Your task to perform on an android device: turn off javascript in the chrome app Image 0: 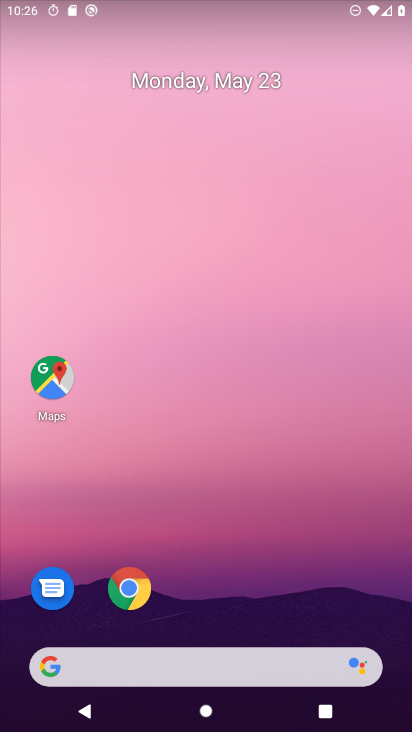
Step 0: click (128, 579)
Your task to perform on an android device: turn off javascript in the chrome app Image 1: 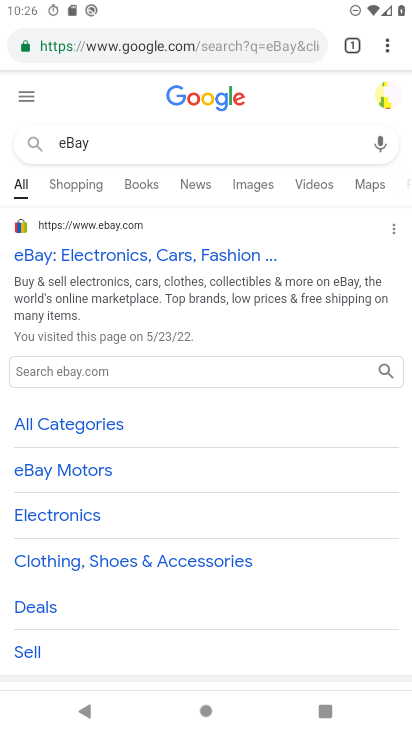
Step 1: click (386, 34)
Your task to perform on an android device: turn off javascript in the chrome app Image 2: 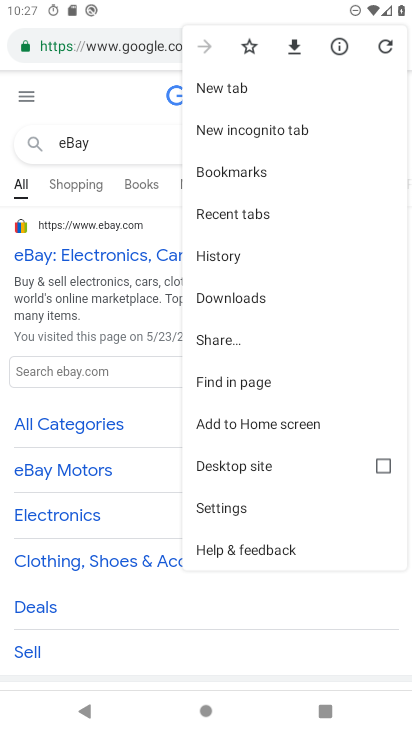
Step 2: click (236, 502)
Your task to perform on an android device: turn off javascript in the chrome app Image 3: 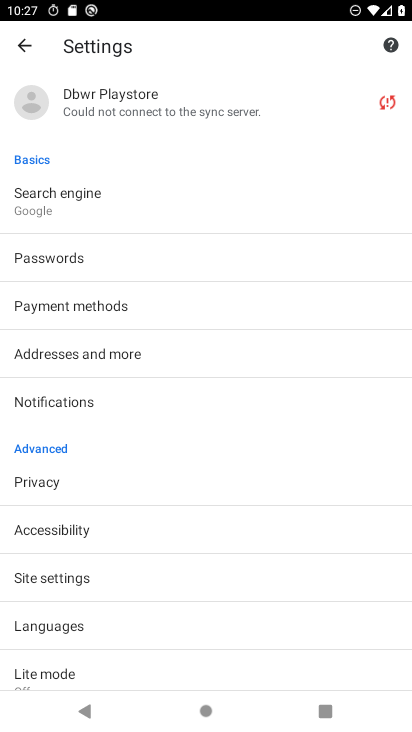
Step 3: click (63, 571)
Your task to perform on an android device: turn off javascript in the chrome app Image 4: 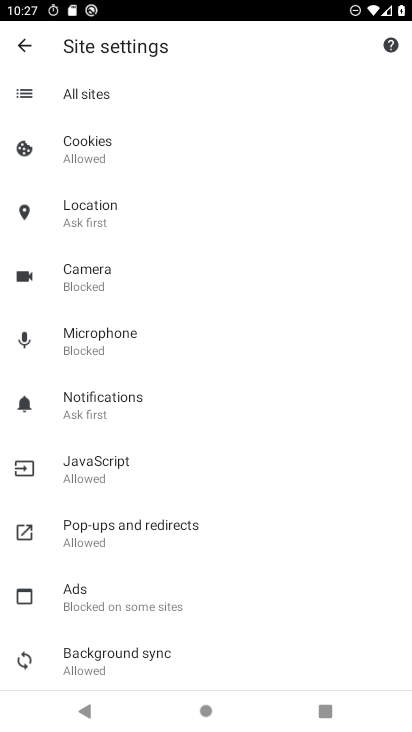
Step 4: click (107, 461)
Your task to perform on an android device: turn off javascript in the chrome app Image 5: 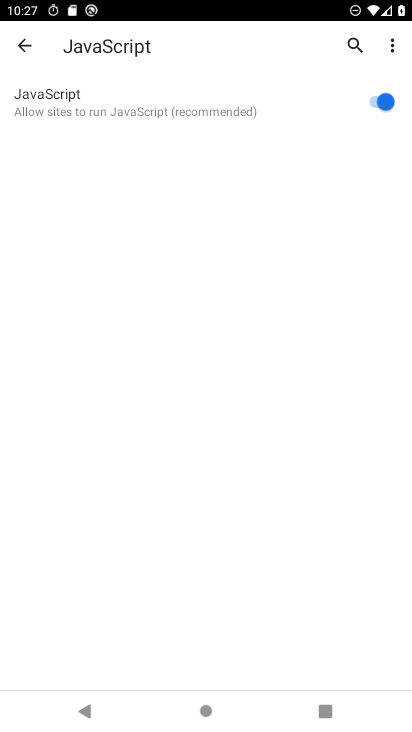
Step 5: click (373, 93)
Your task to perform on an android device: turn off javascript in the chrome app Image 6: 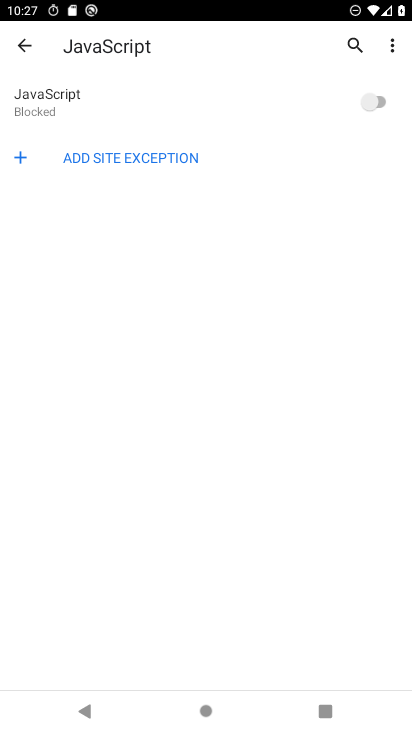
Step 6: task complete